Your task to perform on an android device: turn pop-ups off in chrome Image 0: 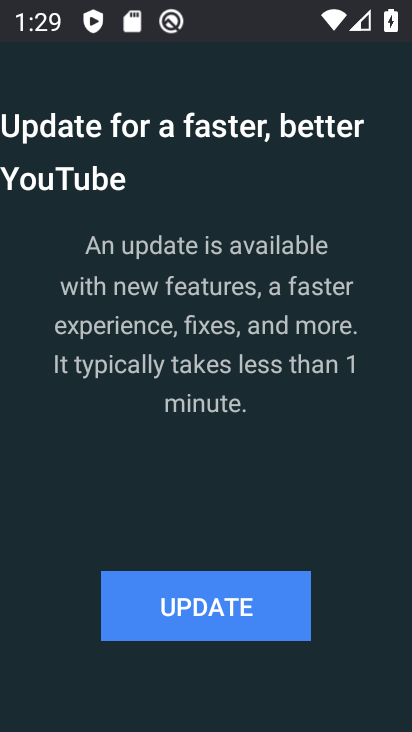
Step 0: press home button
Your task to perform on an android device: turn pop-ups off in chrome Image 1: 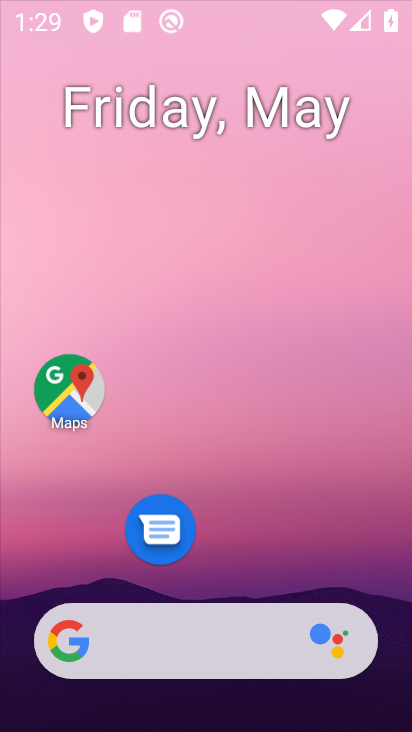
Step 1: drag from (204, 652) to (262, 195)
Your task to perform on an android device: turn pop-ups off in chrome Image 2: 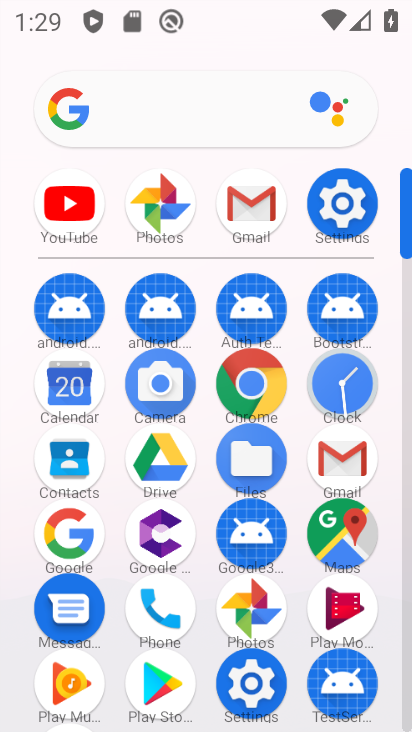
Step 2: click (245, 387)
Your task to perform on an android device: turn pop-ups off in chrome Image 3: 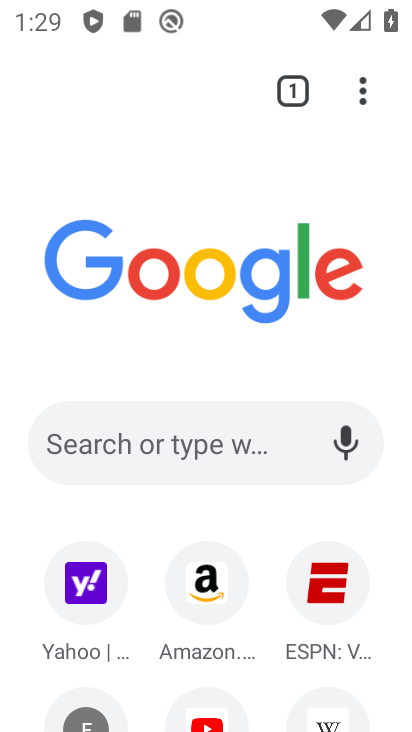
Step 3: click (369, 78)
Your task to perform on an android device: turn pop-ups off in chrome Image 4: 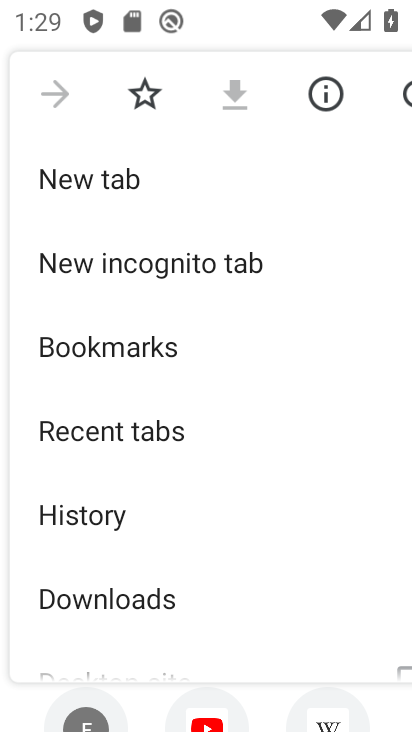
Step 4: drag from (161, 566) to (235, 152)
Your task to perform on an android device: turn pop-ups off in chrome Image 5: 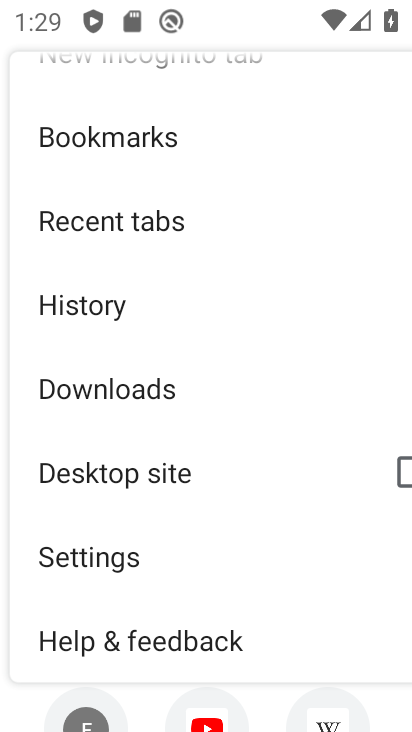
Step 5: click (135, 582)
Your task to perform on an android device: turn pop-ups off in chrome Image 6: 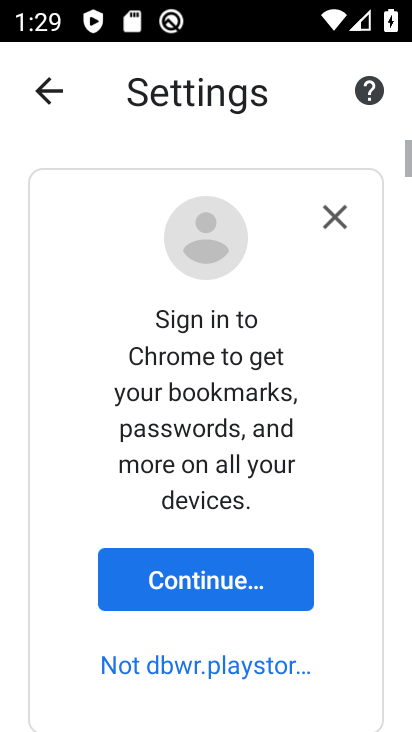
Step 6: drag from (191, 537) to (298, 106)
Your task to perform on an android device: turn pop-ups off in chrome Image 7: 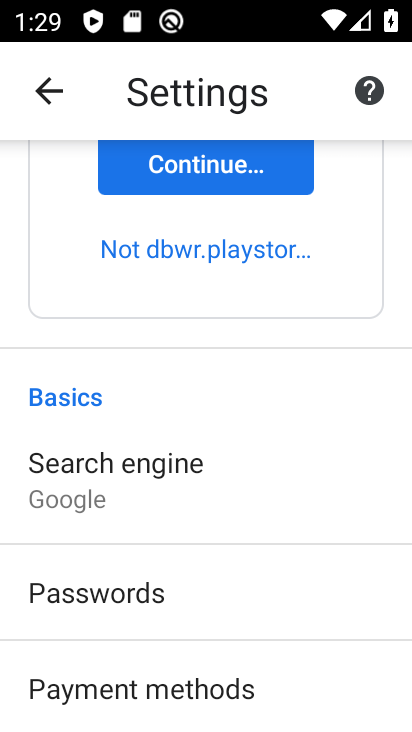
Step 7: drag from (196, 599) to (296, 232)
Your task to perform on an android device: turn pop-ups off in chrome Image 8: 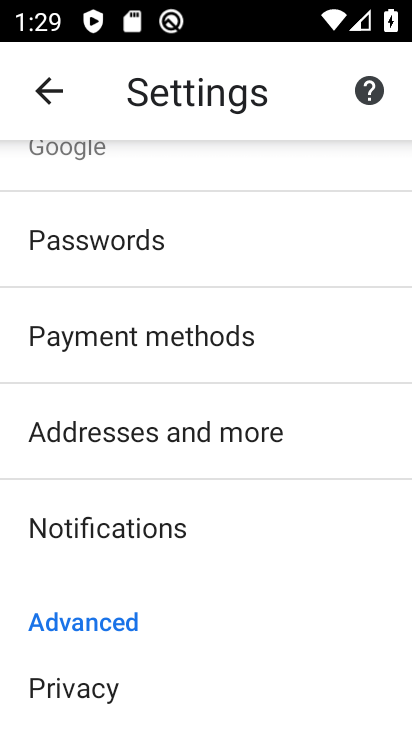
Step 8: drag from (191, 637) to (249, 173)
Your task to perform on an android device: turn pop-ups off in chrome Image 9: 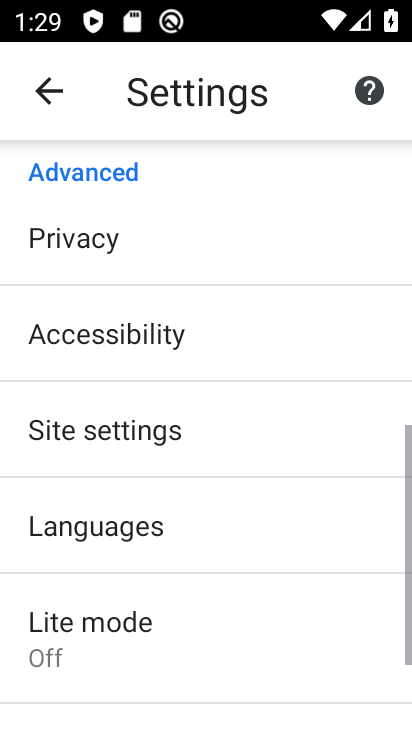
Step 9: click (153, 447)
Your task to perform on an android device: turn pop-ups off in chrome Image 10: 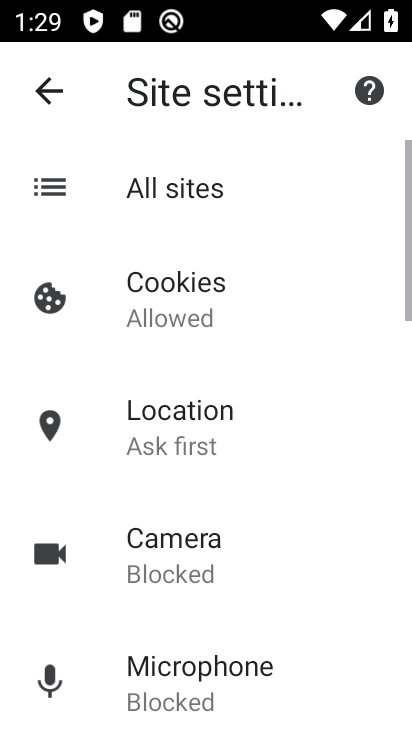
Step 10: drag from (214, 587) to (357, 125)
Your task to perform on an android device: turn pop-ups off in chrome Image 11: 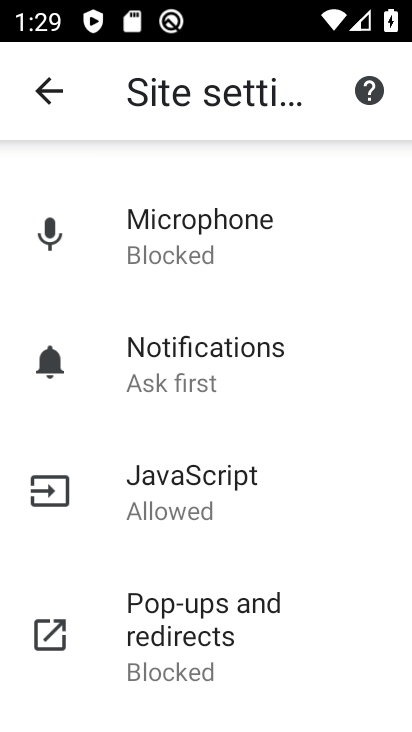
Step 11: click (252, 631)
Your task to perform on an android device: turn pop-ups off in chrome Image 12: 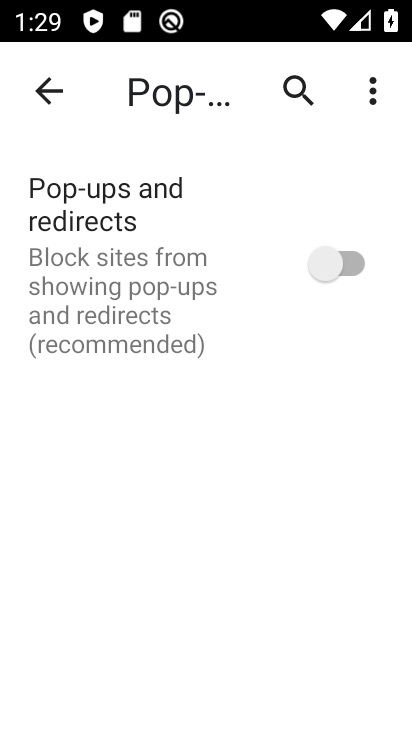
Step 12: task complete